Your task to perform on an android device: turn off data saver in the chrome app Image 0: 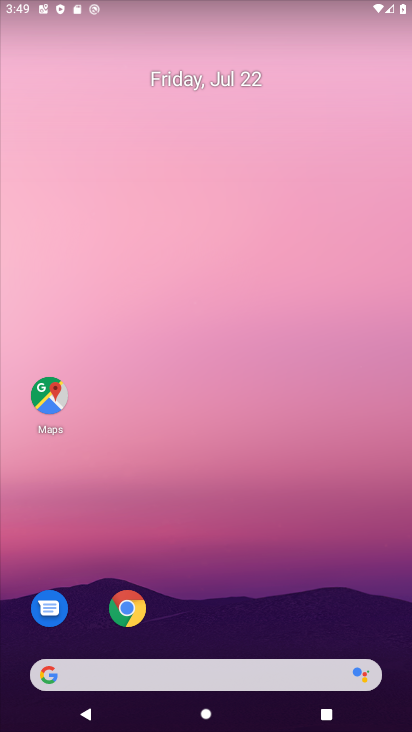
Step 0: drag from (228, 634) to (228, 335)
Your task to perform on an android device: turn off data saver in the chrome app Image 1: 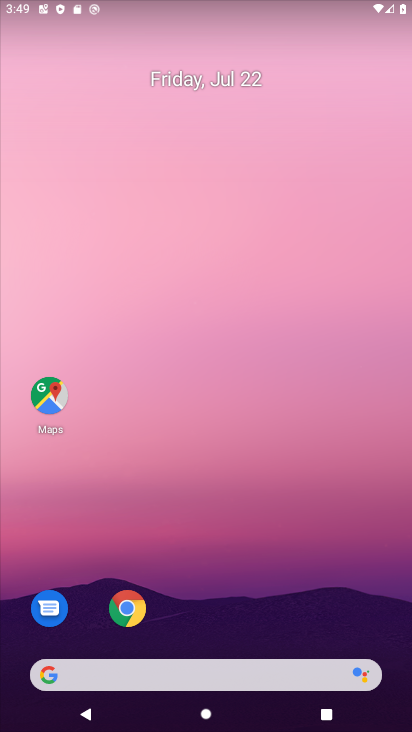
Step 1: click (131, 610)
Your task to perform on an android device: turn off data saver in the chrome app Image 2: 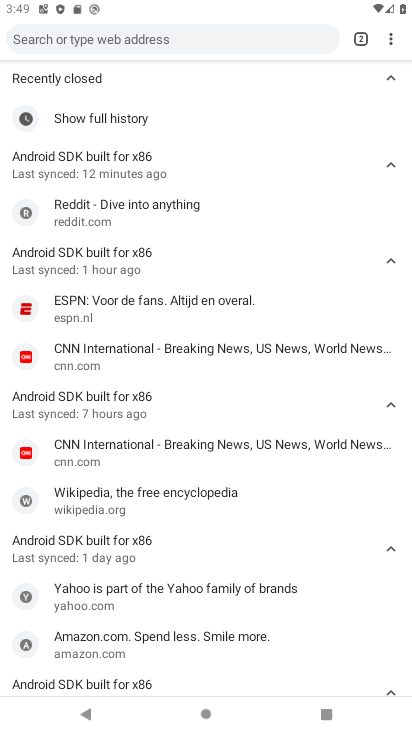
Step 2: click (390, 42)
Your task to perform on an android device: turn off data saver in the chrome app Image 3: 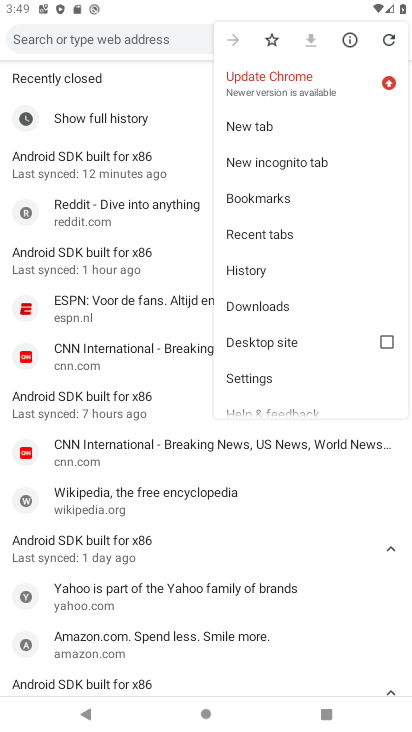
Step 3: click (250, 378)
Your task to perform on an android device: turn off data saver in the chrome app Image 4: 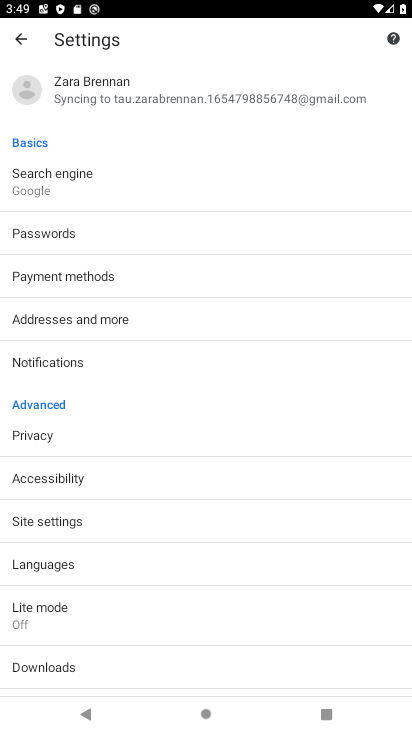
Step 4: click (43, 609)
Your task to perform on an android device: turn off data saver in the chrome app Image 5: 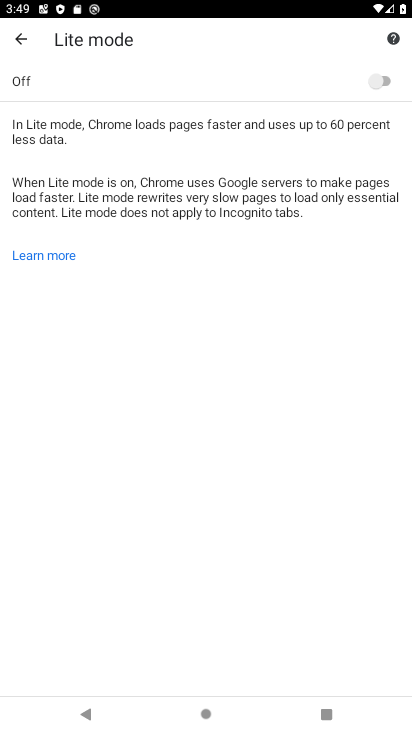
Step 5: task complete